Your task to perform on an android device: change alarm snooze length Image 0: 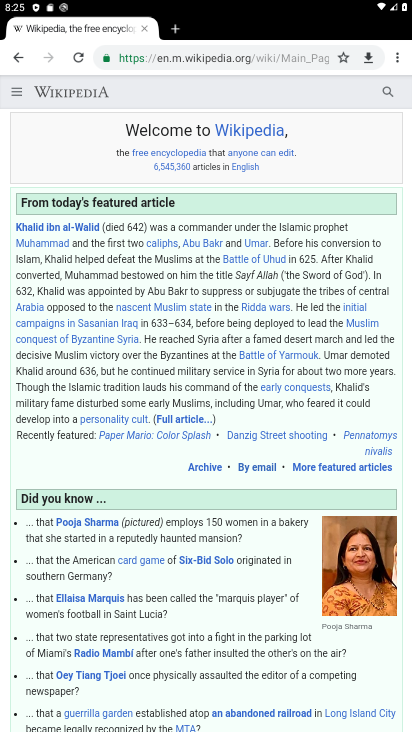
Step 0: press home button
Your task to perform on an android device: change alarm snooze length Image 1: 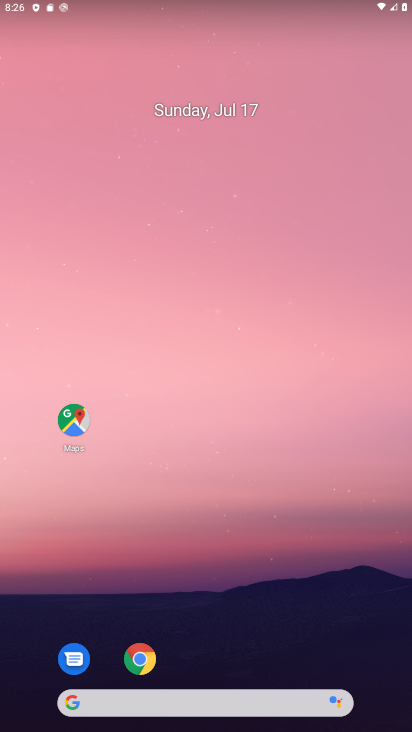
Step 1: drag from (209, 698) to (211, 79)
Your task to perform on an android device: change alarm snooze length Image 2: 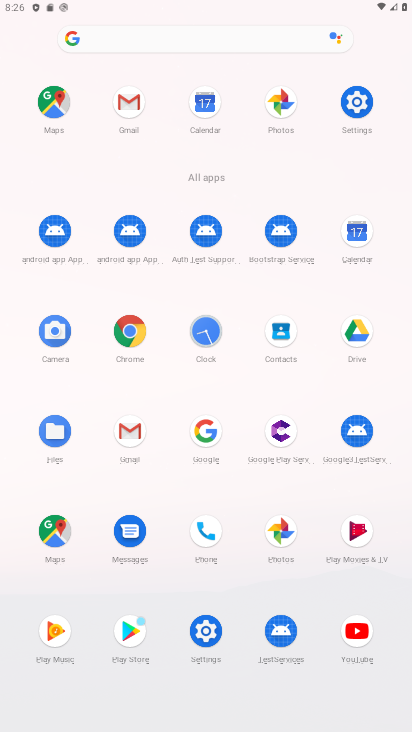
Step 2: click (206, 330)
Your task to perform on an android device: change alarm snooze length Image 3: 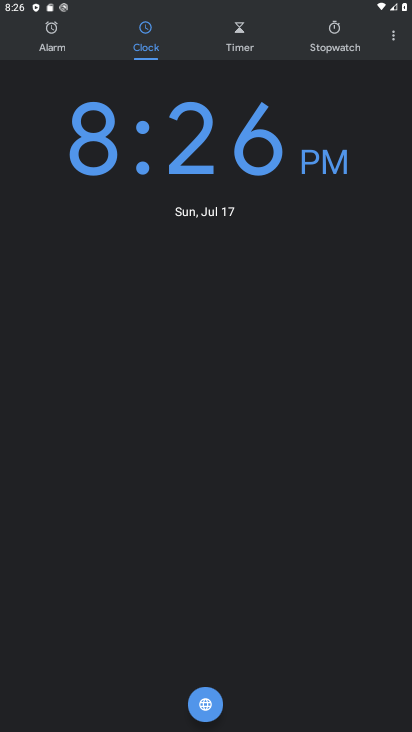
Step 3: click (395, 33)
Your task to perform on an android device: change alarm snooze length Image 4: 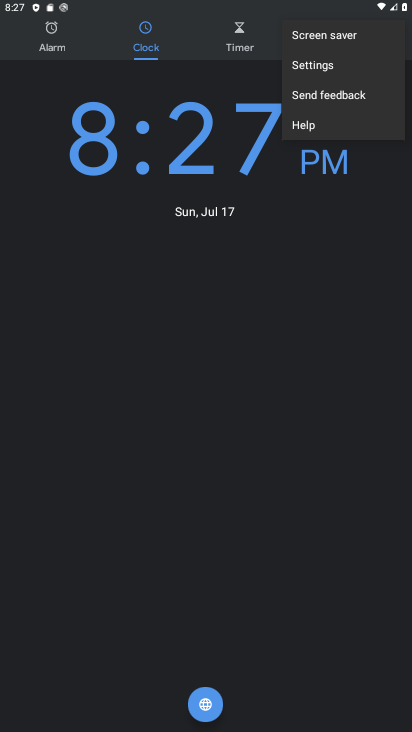
Step 4: click (313, 73)
Your task to perform on an android device: change alarm snooze length Image 5: 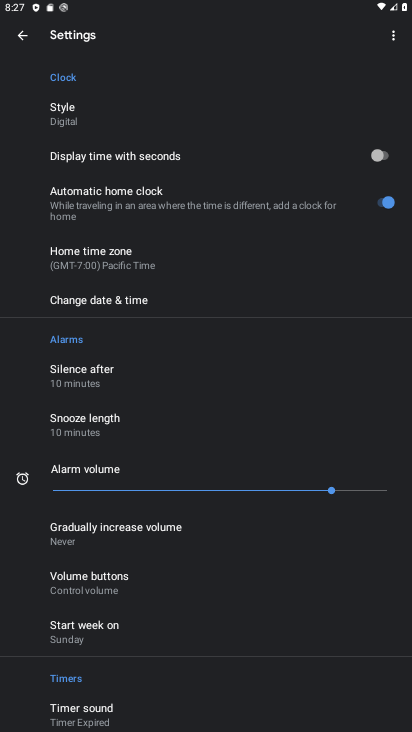
Step 5: click (89, 423)
Your task to perform on an android device: change alarm snooze length Image 6: 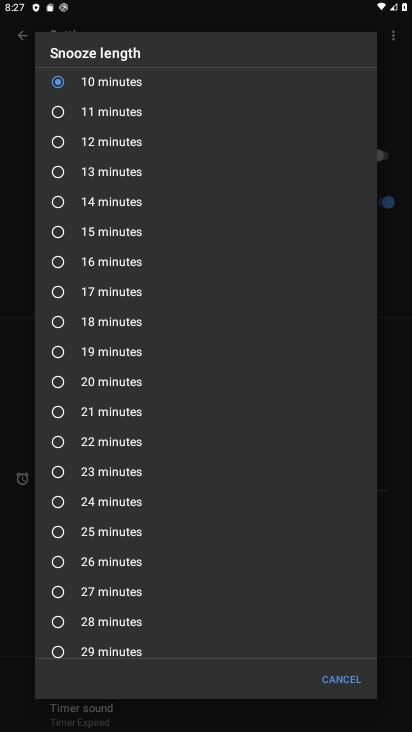
Step 6: click (58, 448)
Your task to perform on an android device: change alarm snooze length Image 7: 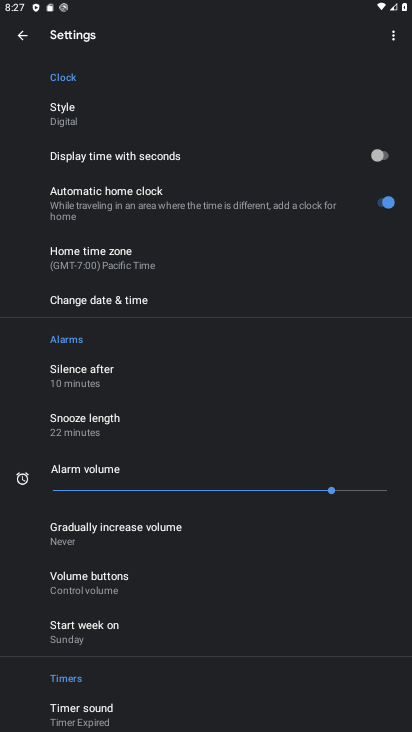
Step 7: task complete